Your task to perform on an android device: turn off smart reply in the gmail app Image 0: 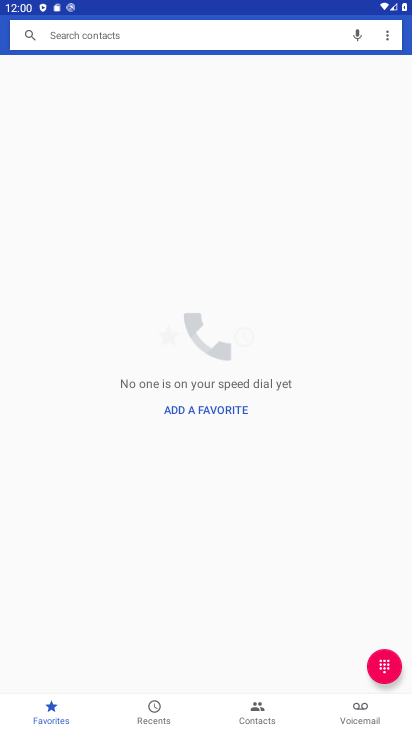
Step 0: press home button
Your task to perform on an android device: turn off smart reply in the gmail app Image 1: 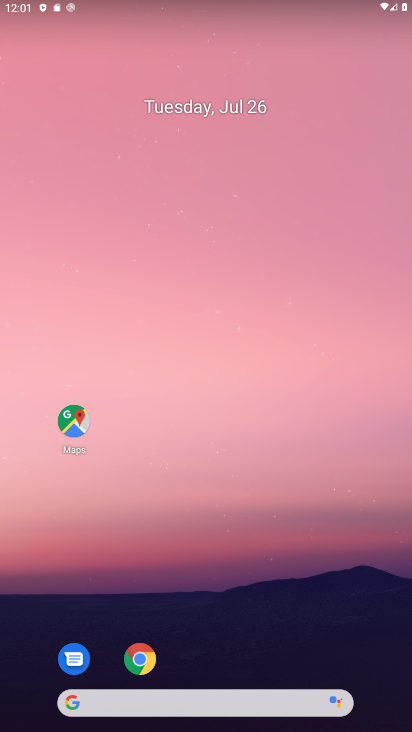
Step 1: drag from (278, 684) to (219, 105)
Your task to perform on an android device: turn off smart reply in the gmail app Image 2: 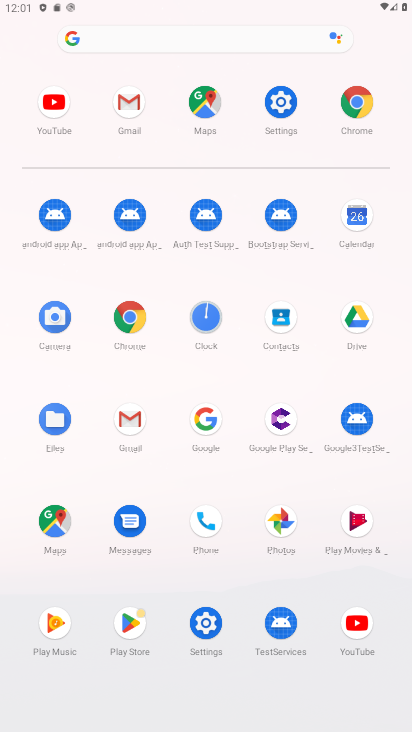
Step 2: click (145, 116)
Your task to perform on an android device: turn off smart reply in the gmail app Image 3: 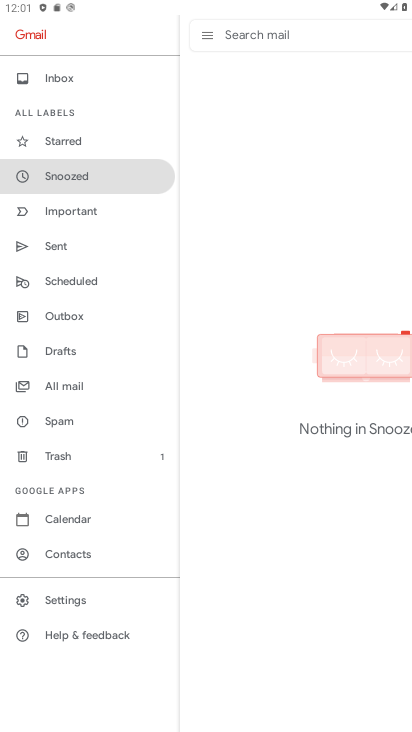
Step 3: click (87, 611)
Your task to perform on an android device: turn off smart reply in the gmail app Image 4: 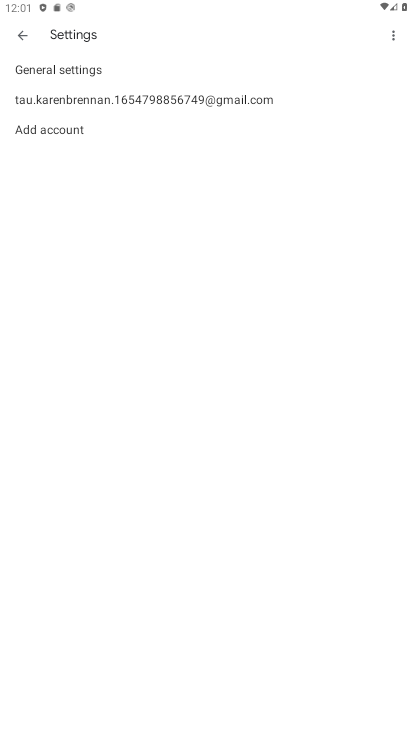
Step 4: click (157, 98)
Your task to perform on an android device: turn off smart reply in the gmail app Image 5: 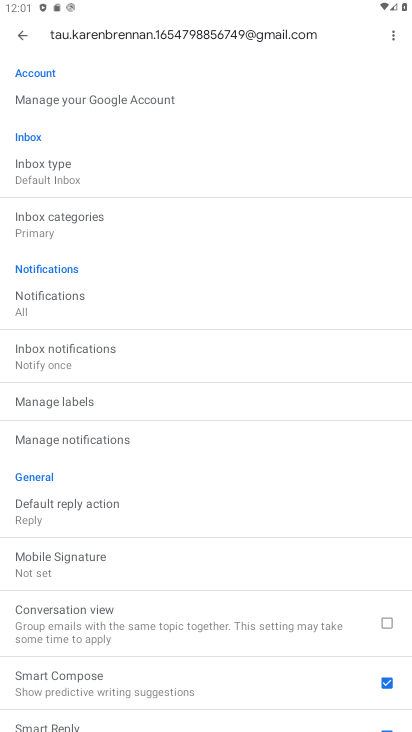
Step 5: drag from (201, 653) to (170, 440)
Your task to perform on an android device: turn off smart reply in the gmail app Image 6: 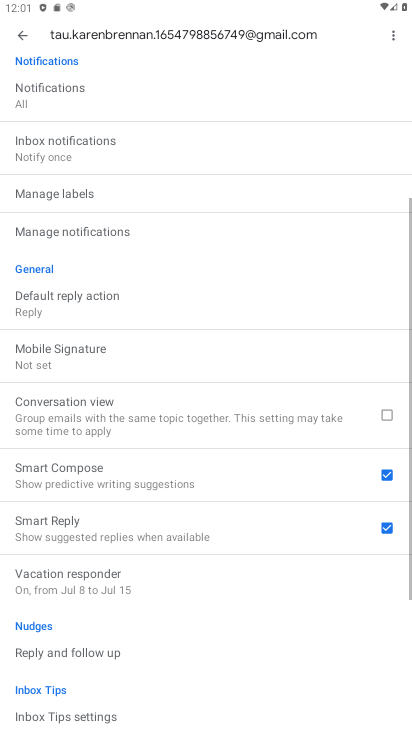
Step 6: click (61, 529)
Your task to perform on an android device: turn off smart reply in the gmail app Image 7: 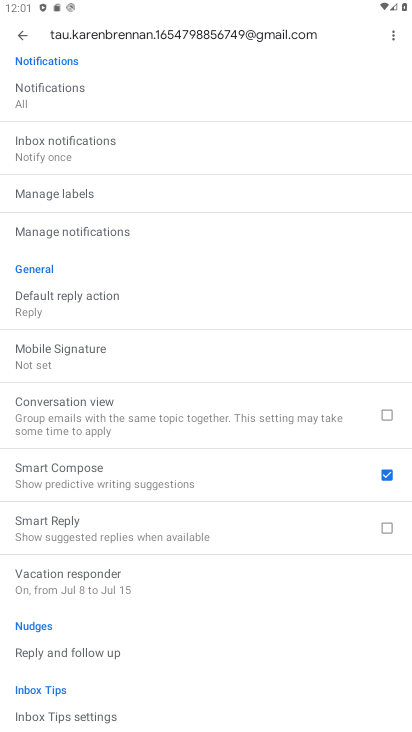
Step 7: task complete